Your task to perform on an android device: Open Google Chrome and open the bookmarks view Image 0: 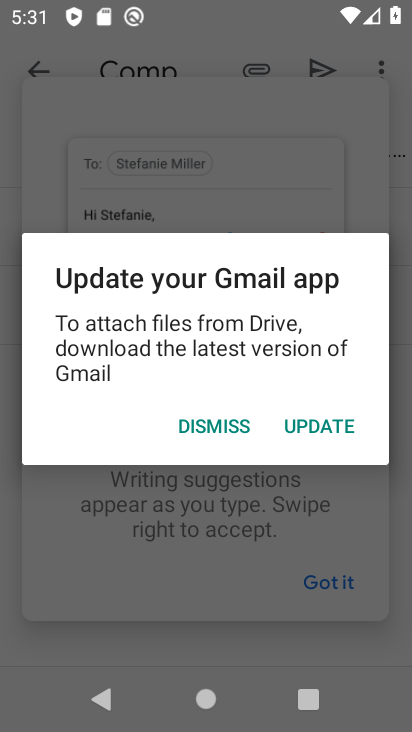
Step 0: press home button
Your task to perform on an android device: Open Google Chrome and open the bookmarks view Image 1: 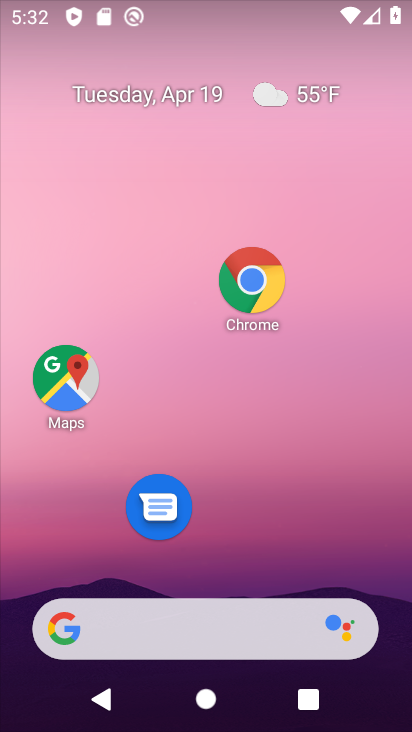
Step 1: click (244, 279)
Your task to perform on an android device: Open Google Chrome and open the bookmarks view Image 2: 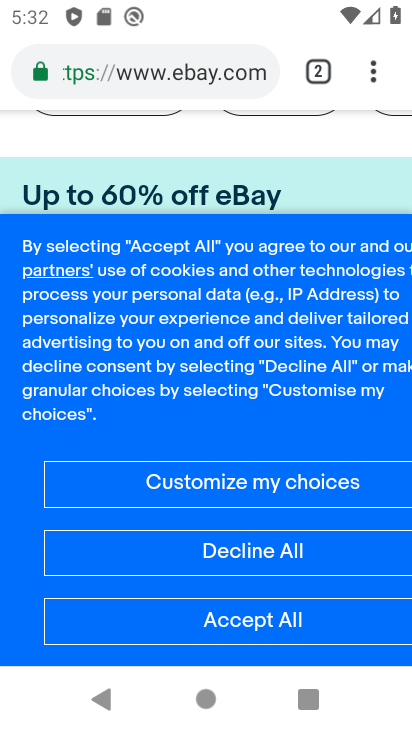
Step 2: press back button
Your task to perform on an android device: Open Google Chrome and open the bookmarks view Image 3: 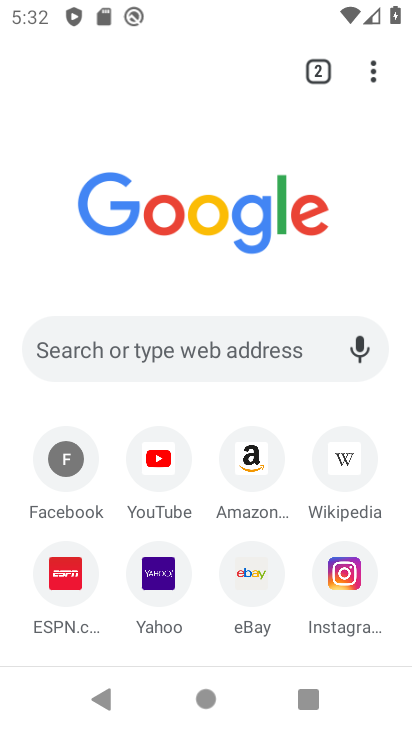
Step 3: click (375, 65)
Your task to perform on an android device: Open Google Chrome and open the bookmarks view Image 4: 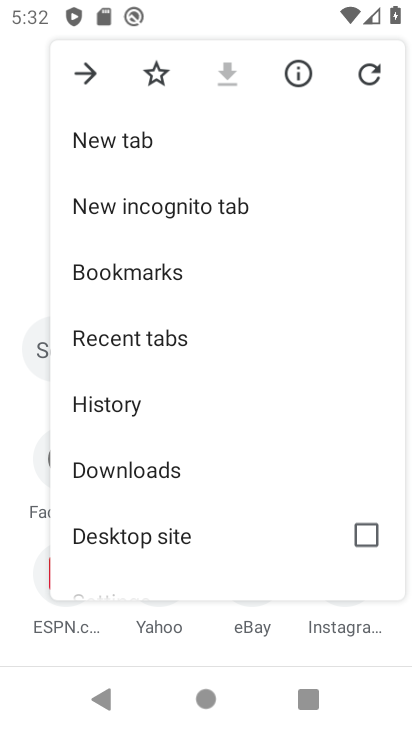
Step 4: click (112, 258)
Your task to perform on an android device: Open Google Chrome and open the bookmarks view Image 5: 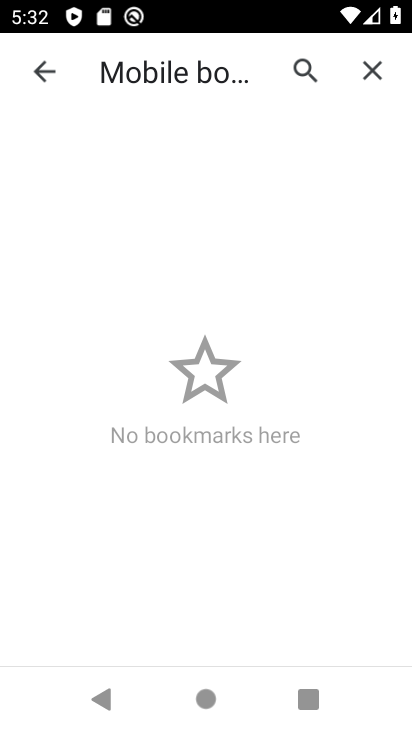
Step 5: task complete